Your task to perform on an android device: change keyboard looks Image 0: 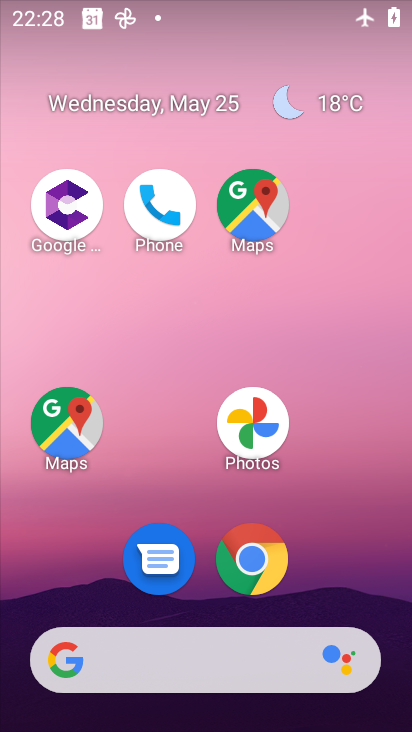
Step 0: drag from (349, 554) to (315, 67)
Your task to perform on an android device: change keyboard looks Image 1: 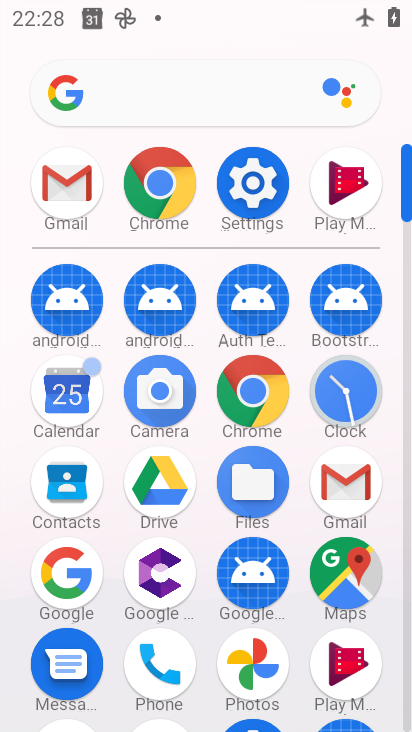
Step 1: click (252, 176)
Your task to perform on an android device: change keyboard looks Image 2: 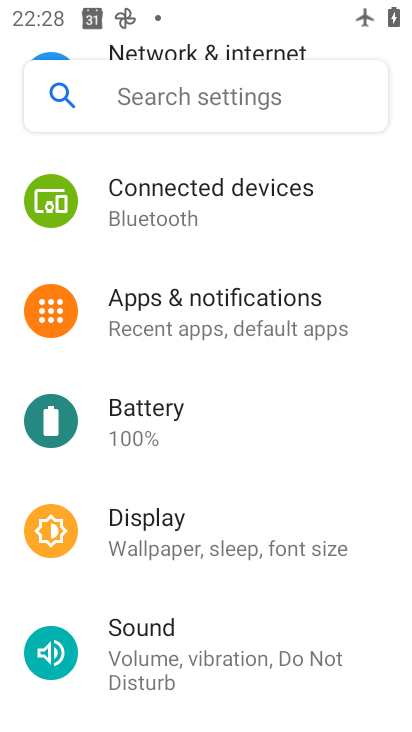
Step 2: drag from (237, 629) to (259, 199)
Your task to perform on an android device: change keyboard looks Image 3: 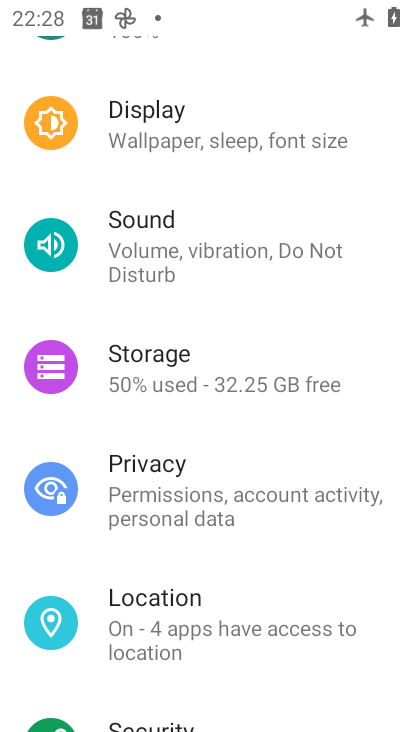
Step 3: drag from (287, 543) to (294, 61)
Your task to perform on an android device: change keyboard looks Image 4: 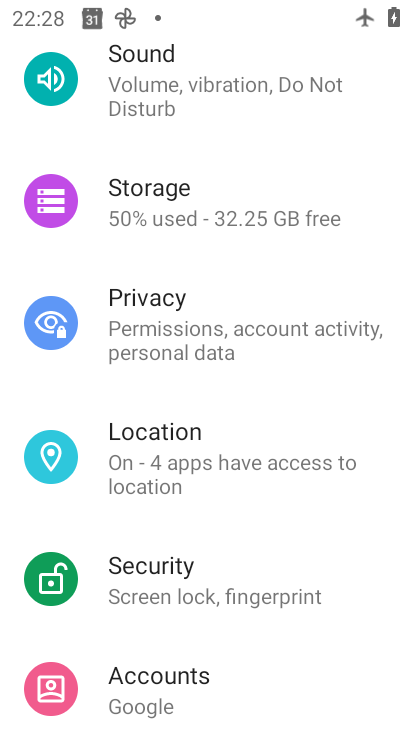
Step 4: drag from (298, 647) to (291, 161)
Your task to perform on an android device: change keyboard looks Image 5: 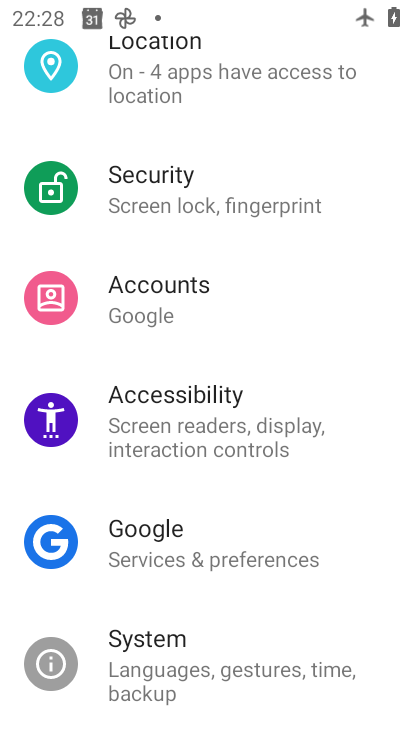
Step 5: click (220, 655)
Your task to perform on an android device: change keyboard looks Image 6: 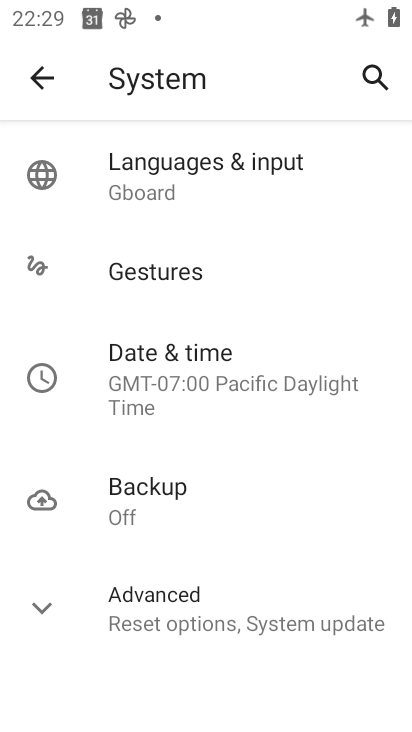
Step 6: click (208, 186)
Your task to perform on an android device: change keyboard looks Image 7: 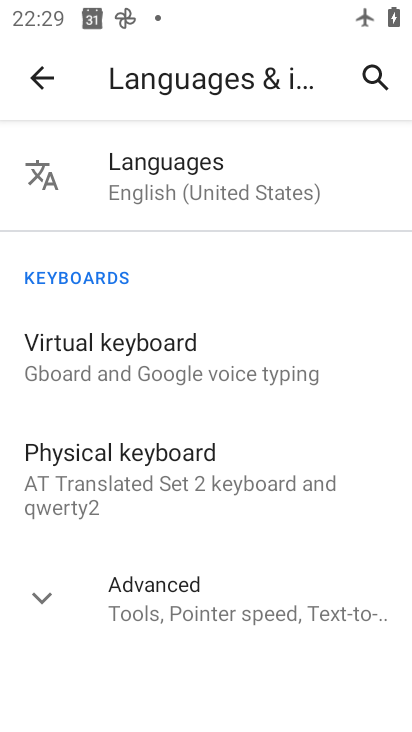
Step 7: click (207, 352)
Your task to perform on an android device: change keyboard looks Image 8: 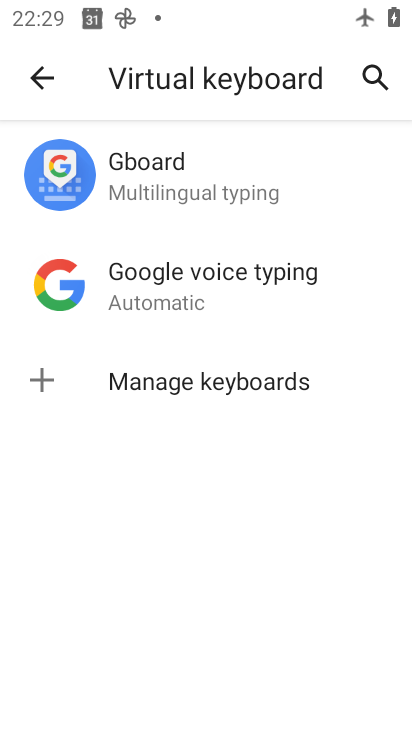
Step 8: click (218, 190)
Your task to perform on an android device: change keyboard looks Image 9: 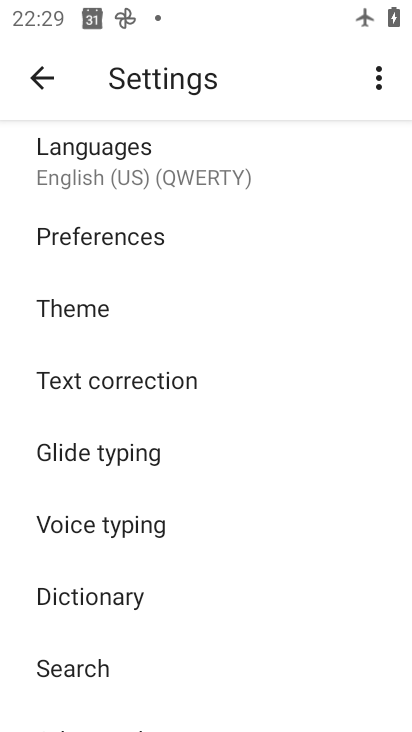
Step 9: click (105, 309)
Your task to perform on an android device: change keyboard looks Image 10: 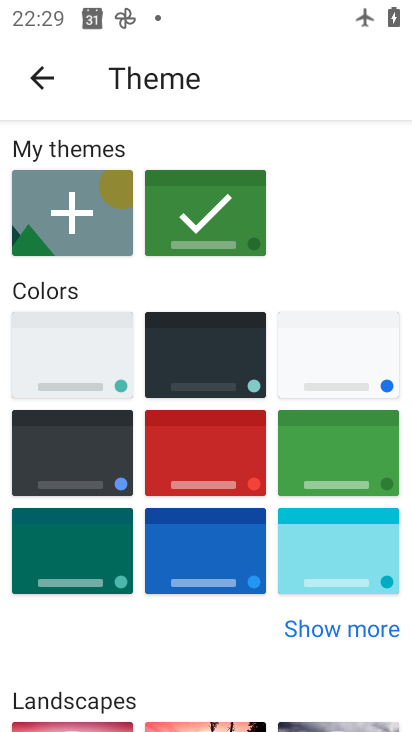
Step 10: click (202, 442)
Your task to perform on an android device: change keyboard looks Image 11: 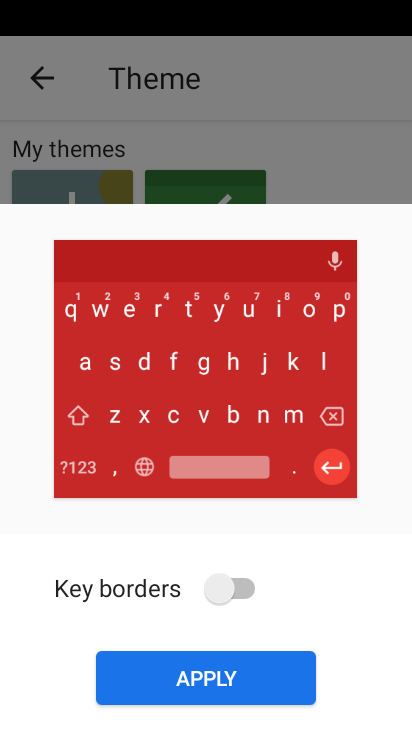
Step 11: click (250, 585)
Your task to perform on an android device: change keyboard looks Image 12: 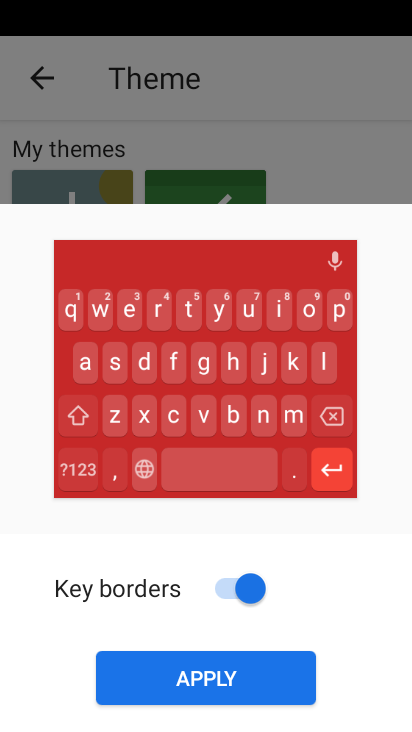
Step 12: click (267, 676)
Your task to perform on an android device: change keyboard looks Image 13: 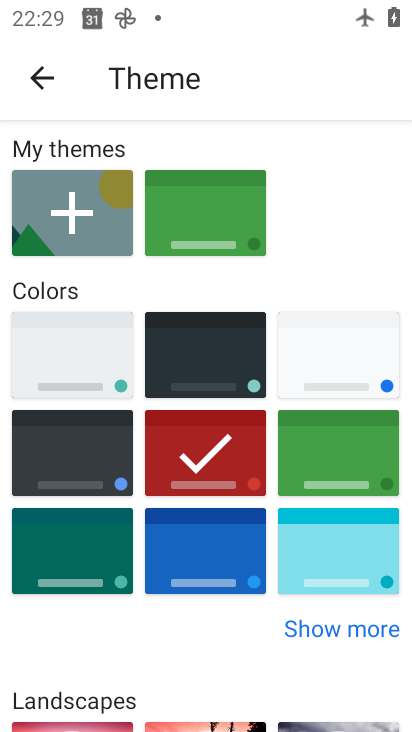
Step 13: task complete